Your task to perform on an android device: Open Chrome and go to settings Image 0: 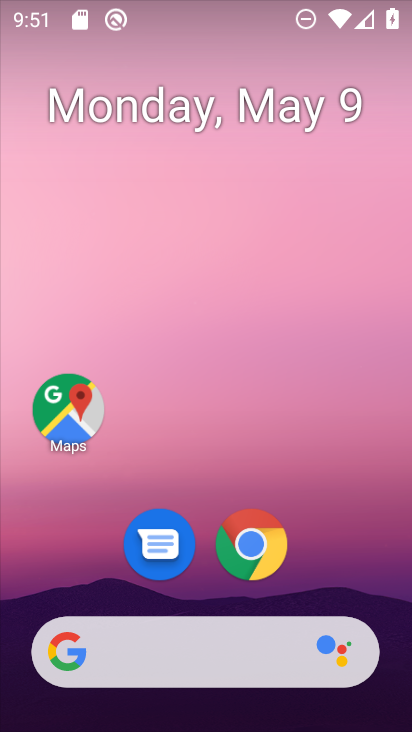
Step 0: drag from (321, 582) to (221, 13)
Your task to perform on an android device: Open Chrome and go to settings Image 1: 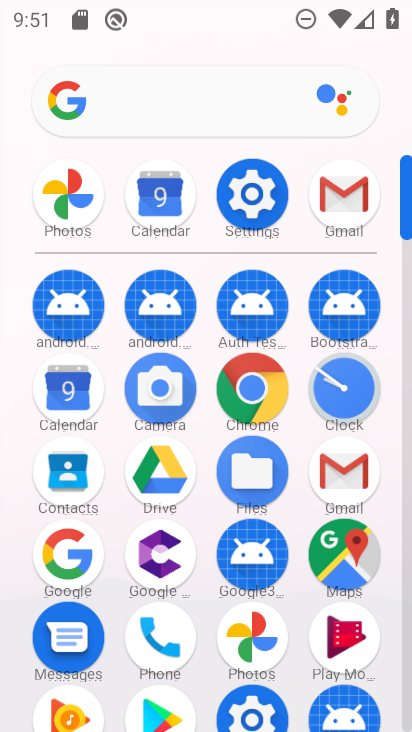
Step 1: click (248, 382)
Your task to perform on an android device: Open Chrome and go to settings Image 2: 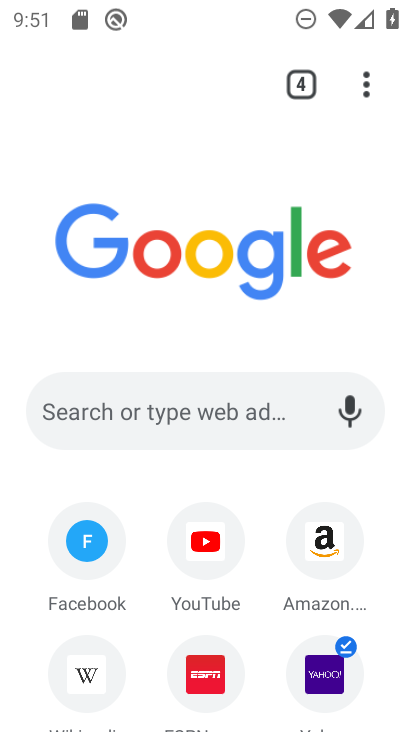
Step 2: click (360, 79)
Your task to perform on an android device: Open Chrome and go to settings Image 3: 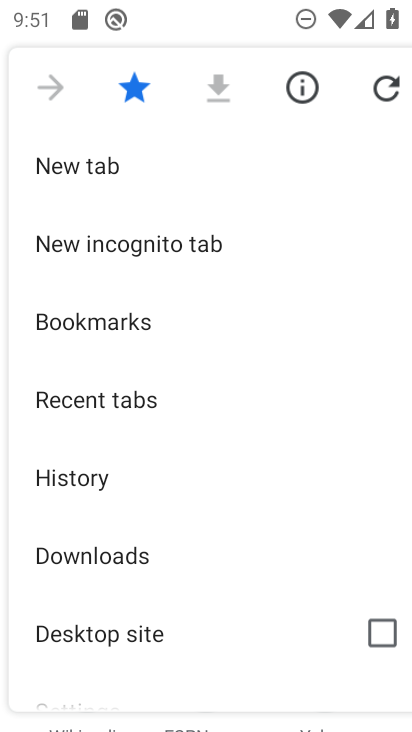
Step 3: drag from (230, 609) to (140, 247)
Your task to perform on an android device: Open Chrome and go to settings Image 4: 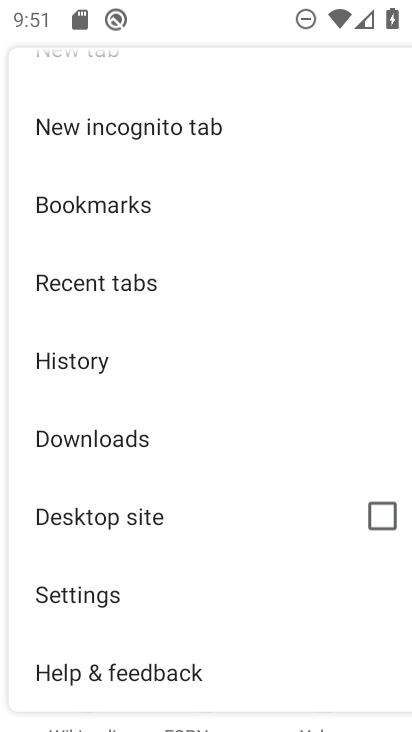
Step 4: click (92, 584)
Your task to perform on an android device: Open Chrome and go to settings Image 5: 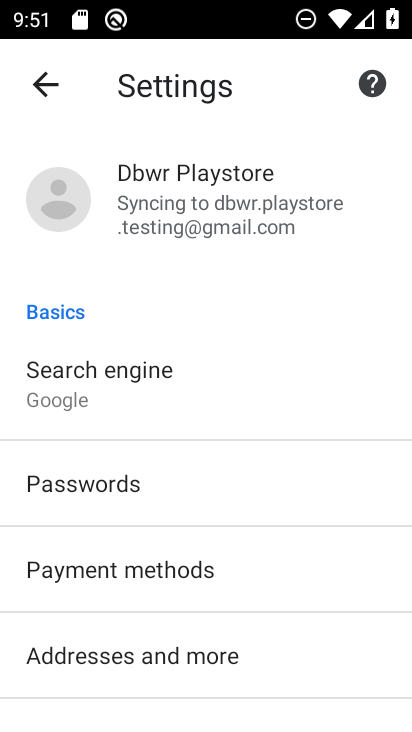
Step 5: task complete